Your task to perform on an android device: turn on wifi Image 0: 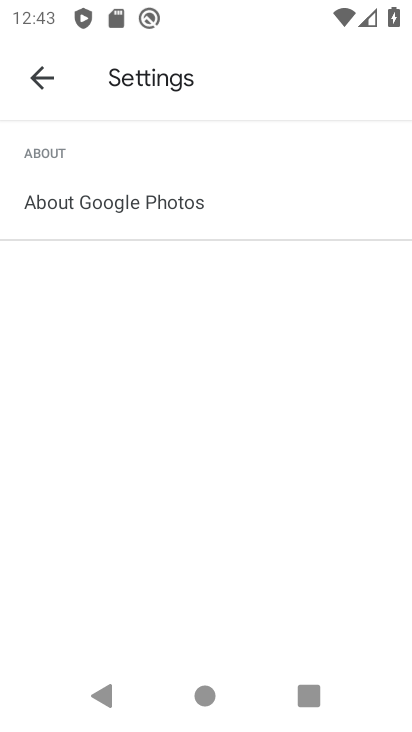
Step 0: drag from (210, 15) to (268, 467)
Your task to perform on an android device: turn on wifi Image 1: 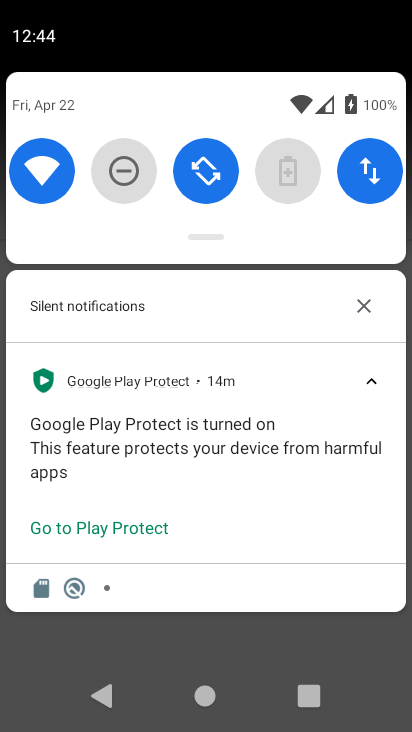
Step 1: task complete